Your task to perform on an android device: Open Youtube and go to "Your channel" Image 0: 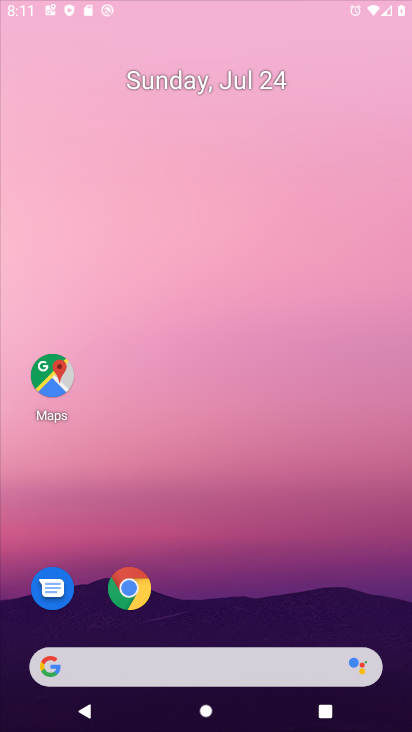
Step 0: drag from (273, 540) to (187, 154)
Your task to perform on an android device: Open Youtube and go to "Your channel" Image 1: 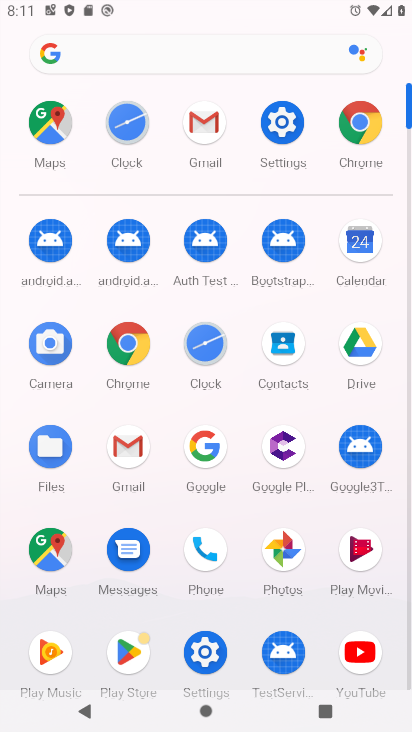
Step 1: click (356, 646)
Your task to perform on an android device: Open Youtube and go to "Your channel" Image 2: 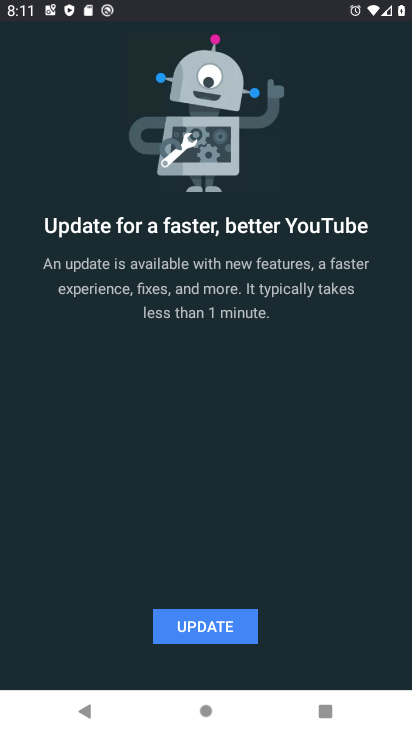
Step 2: click (209, 603)
Your task to perform on an android device: Open Youtube and go to "Your channel" Image 3: 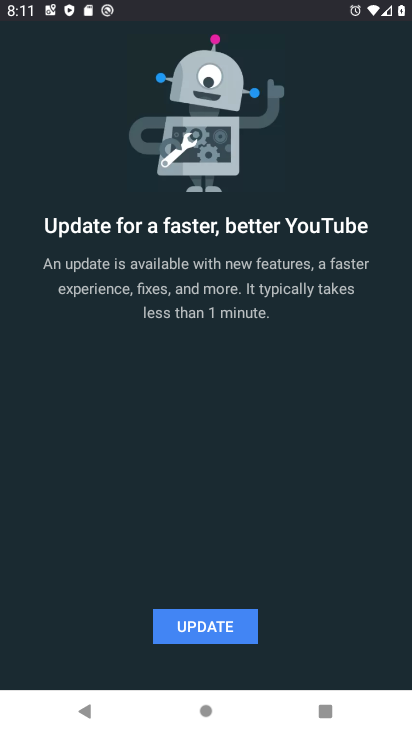
Step 3: click (202, 630)
Your task to perform on an android device: Open Youtube and go to "Your channel" Image 4: 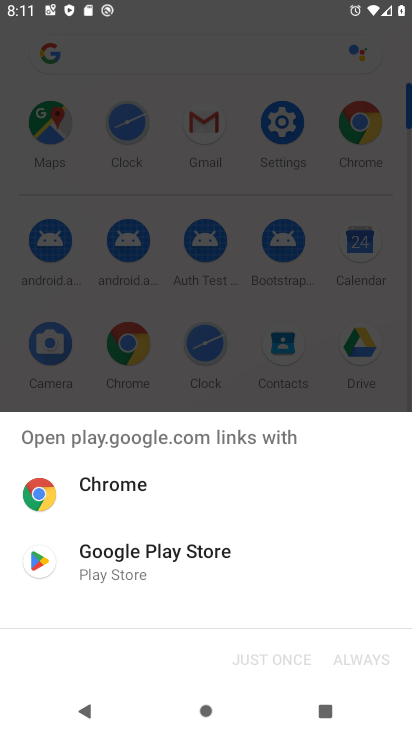
Step 4: click (112, 540)
Your task to perform on an android device: Open Youtube and go to "Your channel" Image 5: 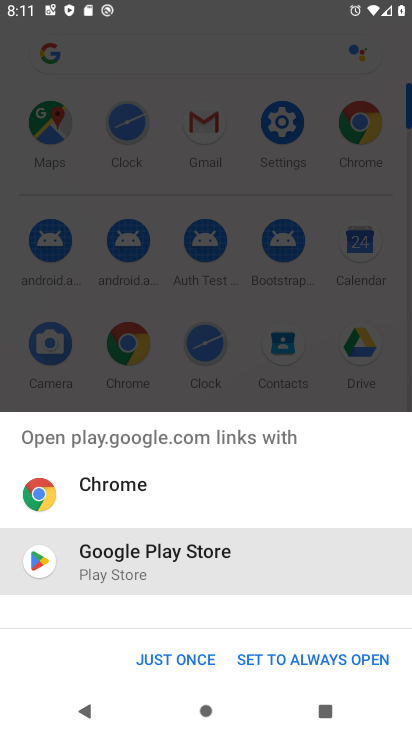
Step 5: click (187, 656)
Your task to perform on an android device: Open Youtube and go to "Your channel" Image 6: 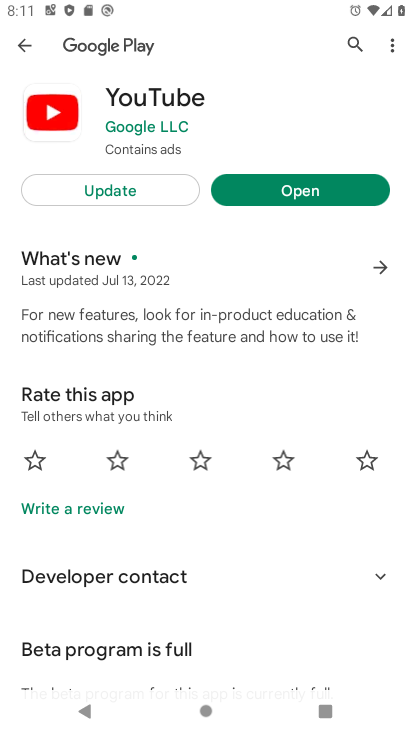
Step 6: click (121, 186)
Your task to perform on an android device: Open Youtube and go to "Your channel" Image 7: 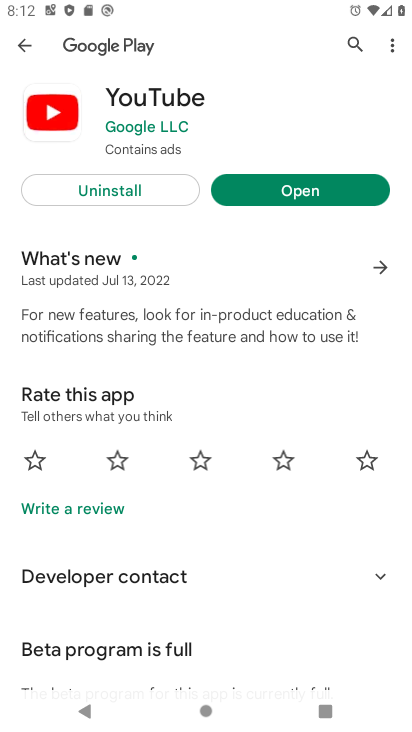
Step 7: click (300, 192)
Your task to perform on an android device: Open Youtube and go to "Your channel" Image 8: 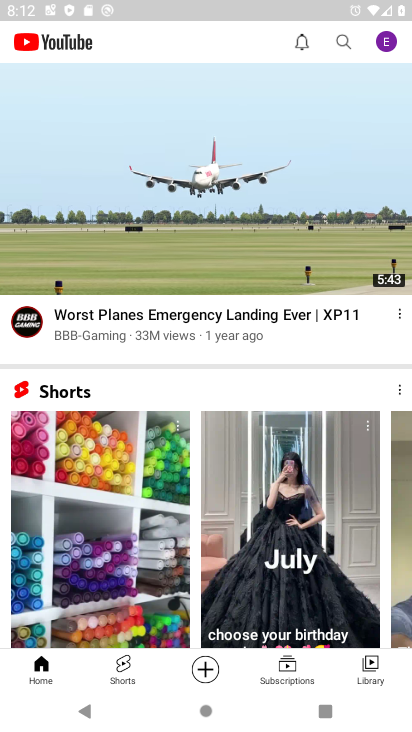
Step 8: click (376, 43)
Your task to perform on an android device: Open Youtube and go to "Your channel" Image 9: 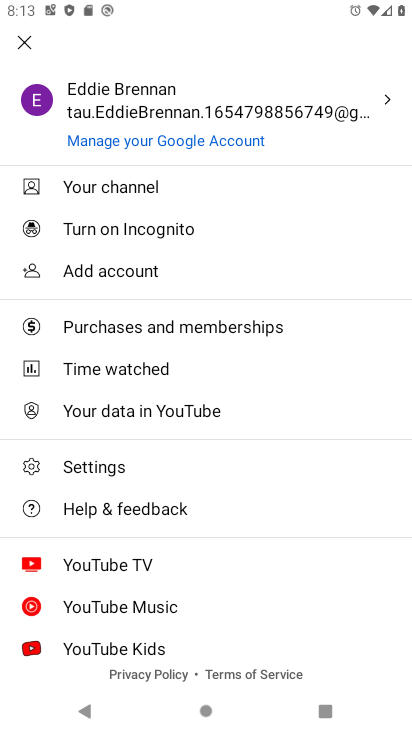
Step 9: click (121, 180)
Your task to perform on an android device: Open Youtube and go to "Your channel" Image 10: 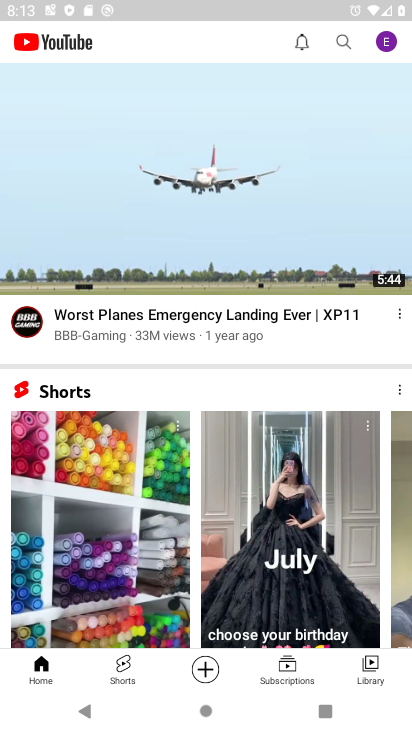
Step 10: click (380, 39)
Your task to perform on an android device: Open Youtube and go to "Your channel" Image 11: 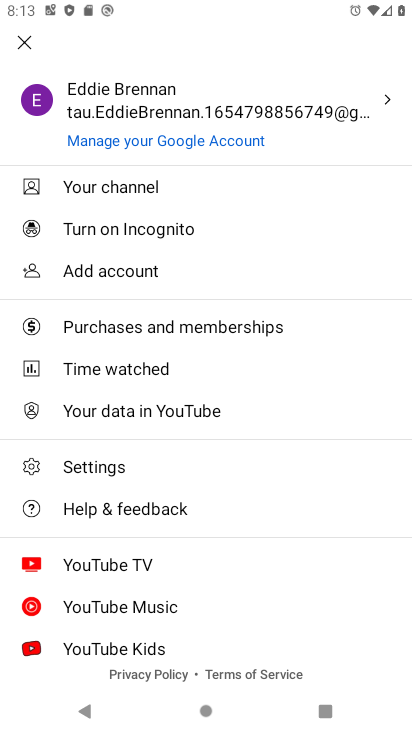
Step 11: click (133, 189)
Your task to perform on an android device: Open Youtube and go to "Your channel" Image 12: 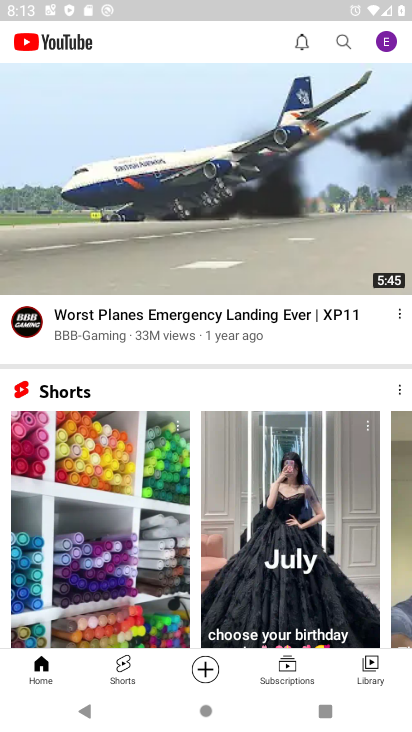
Step 12: task complete